Your task to perform on an android device: Open maps Image 0: 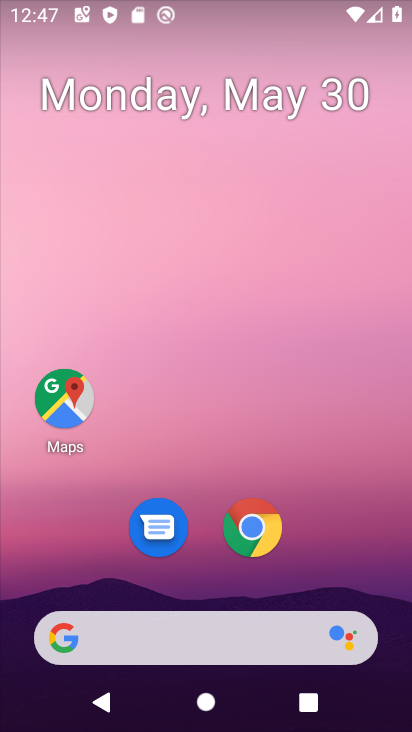
Step 0: drag from (187, 453) to (234, 209)
Your task to perform on an android device: Open maps Image 1: 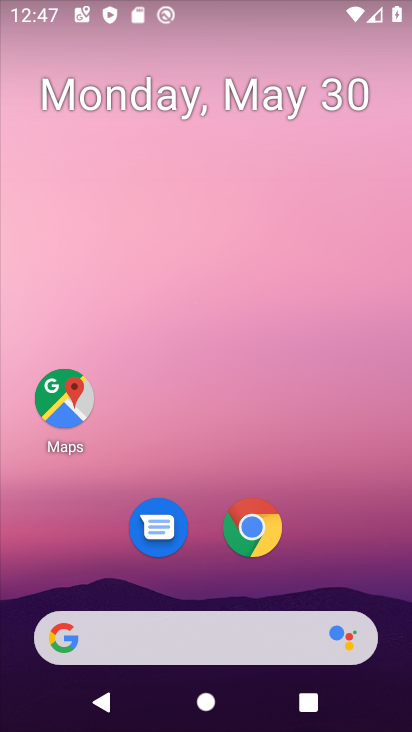
Step 1: click (66, 403)
Your task to perform on an android device: Open maps Image 2: 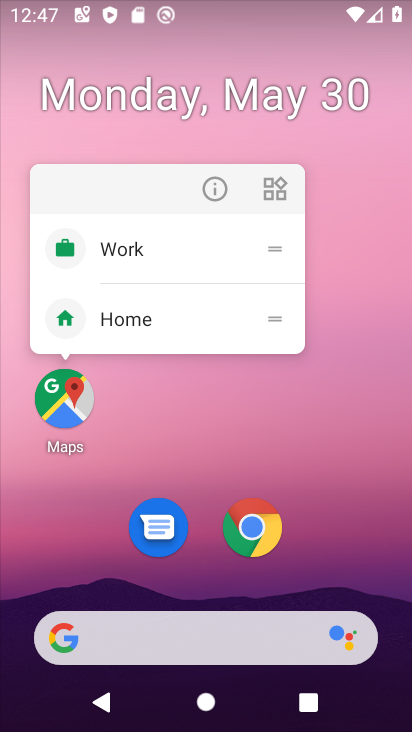
Step 2: click (203, 192)
Your task to perform on an android device: Open maps Image 3: 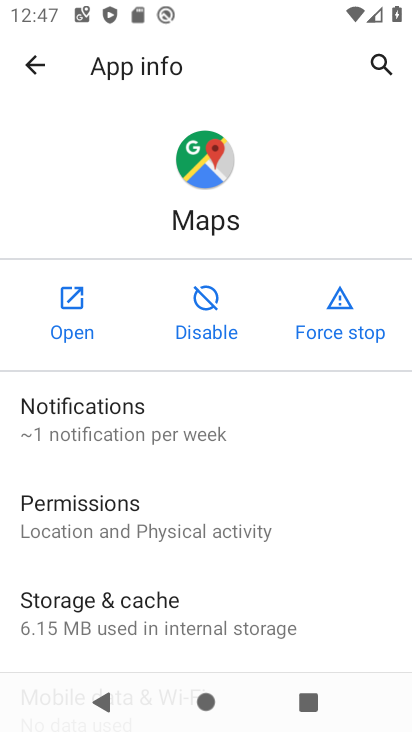
Step 3: click (88, 315)
Your task to perform on an android device: Open maps Image 4: 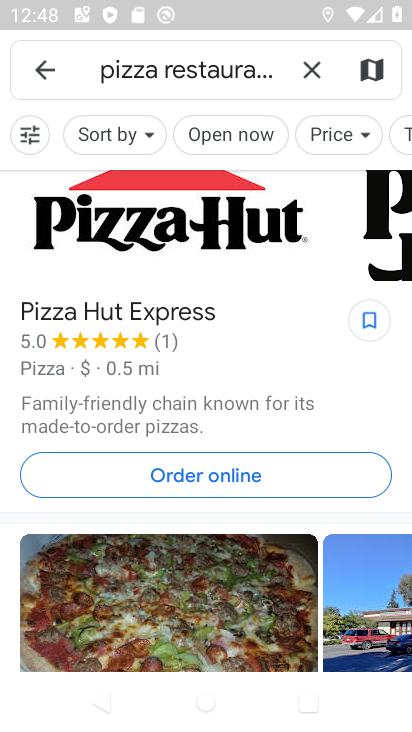
Step 4: task complete